Your task to perform on an android device: Go to settings Image 0: 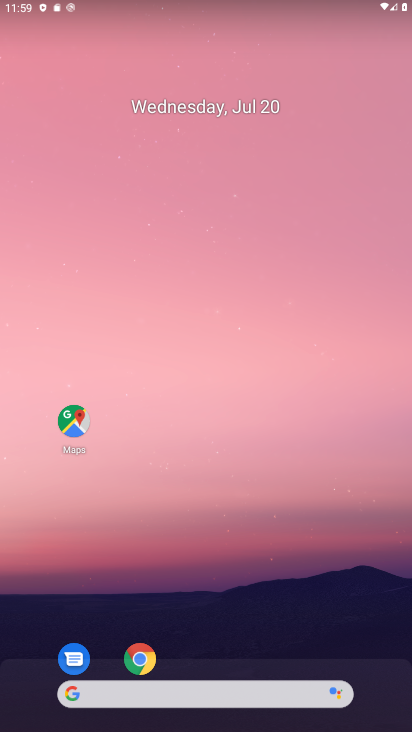
Step 0: drag from (200, 411) to (219, 40)
Your task to perform on an android device: Go to settings Image 1: 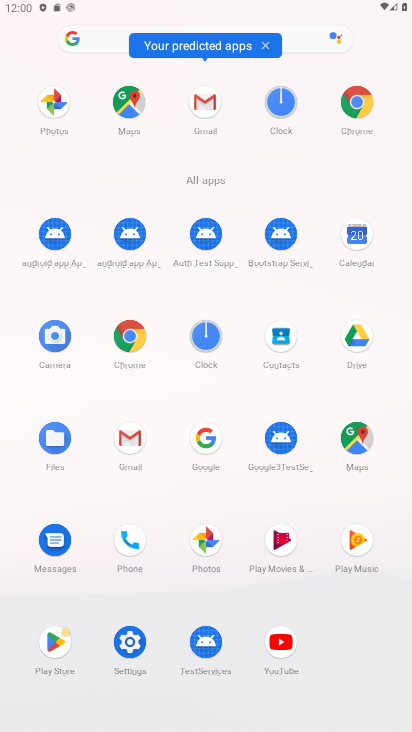
Step 1: click (125, 652)
Your task to perform on an android device: Go to settings Image 2: 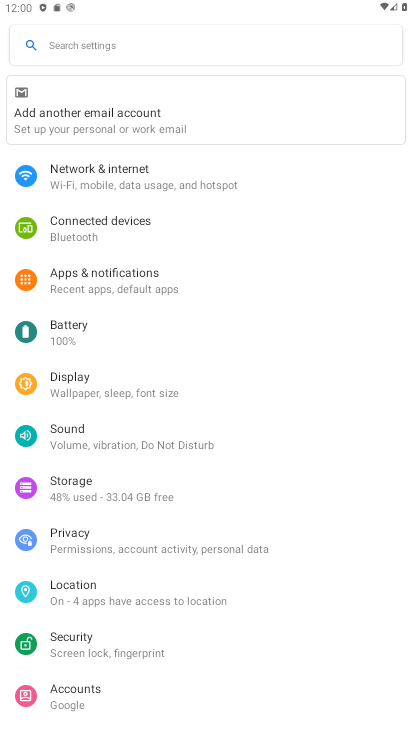
Step 2: task complete